Your task to perform on an android device: turn on bluetooth scan Image 0: 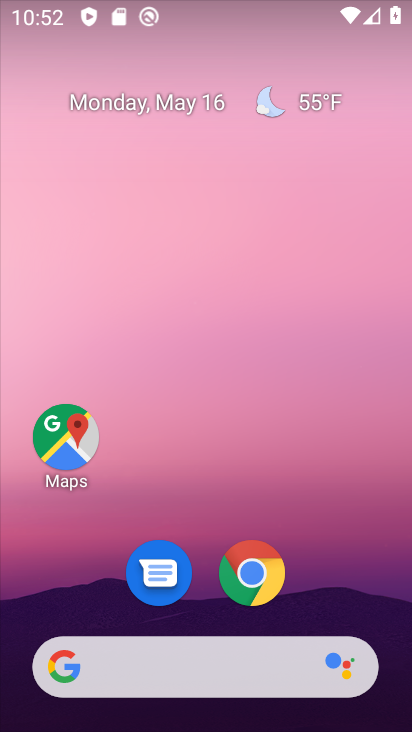
Step 0: drag from (173, 481) to (179, 268)
Your task to perform on an android device: turn on bluetooth scan Image 1: 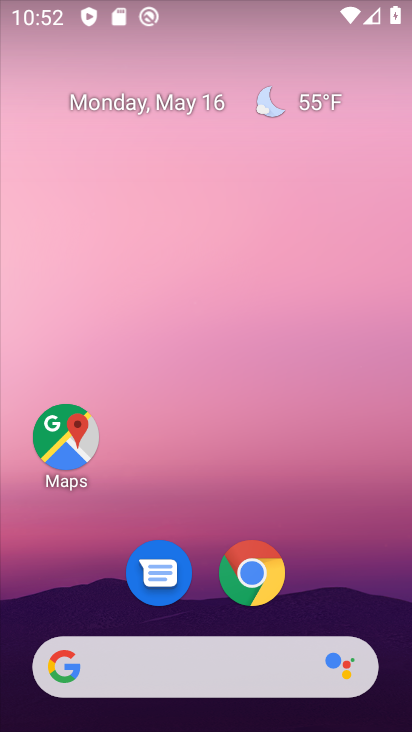
Step 1: drag from (207, 589) to (207, 199)
Your task to perform on an android device: turn on bluetooth scan Image 2: 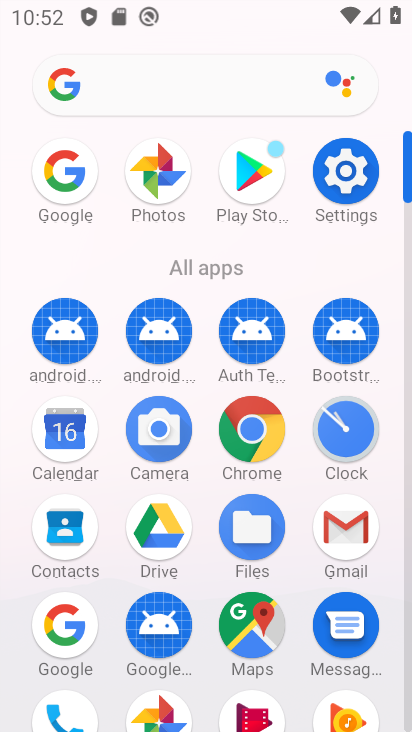
Step 2: click (341, 175)
Your task to perform on an android device: turn on bluetooth scan Image 3: 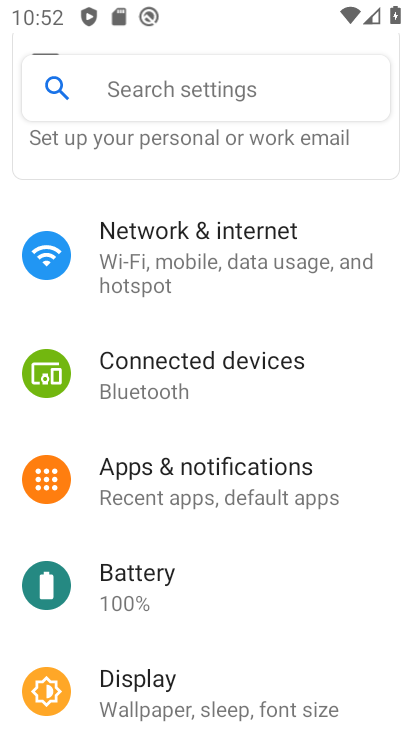
Step 3: drag from (168, 695) to (161, 368)
Your task to perform on an android device: turn on bluetooth scan Image 4: 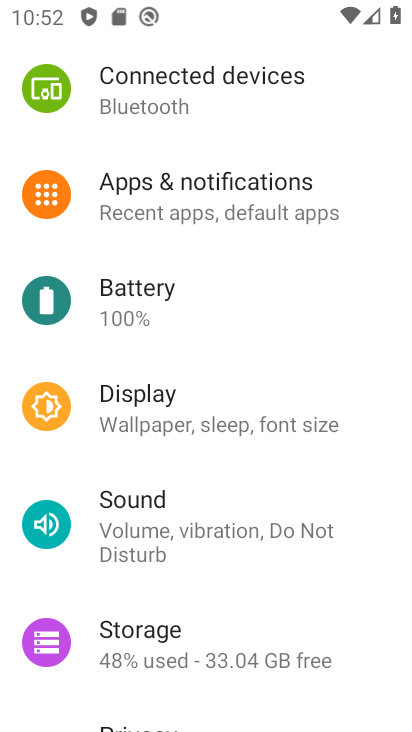
Step 4: drag from (195, 675) to (196, 420)
Your task to perform on an android device: turn on bluetooth scan Image 5: 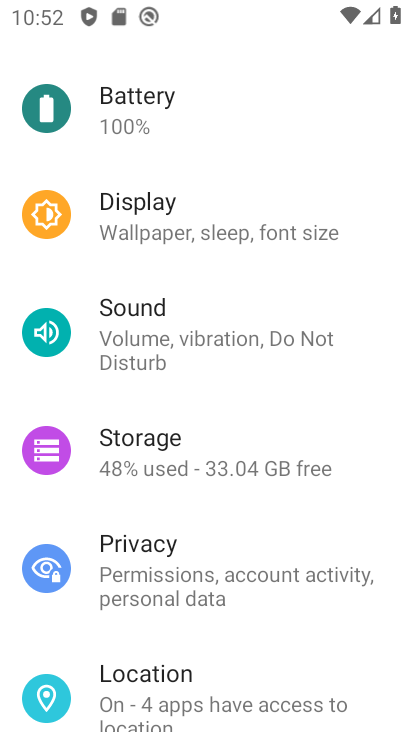
Step 5: drag from (146, 711) to (162, 388)
Your task to perform on an android device: turn on bluetooth scan Image 6: 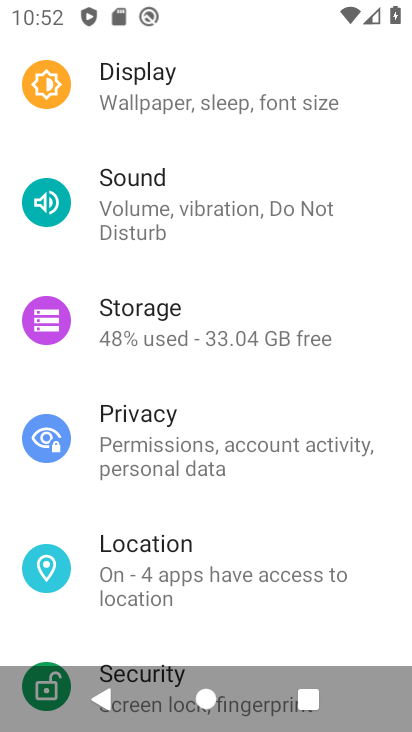
Step 6: click (168, 578)
Your task to perform on an android device: turn on bluetooth scan Image 7: 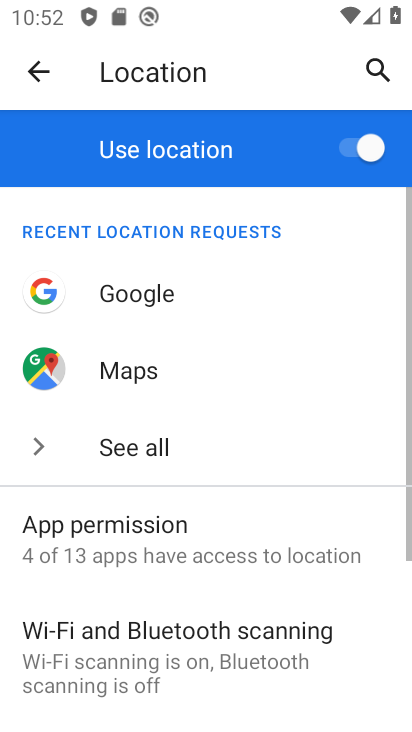
Step 7: click (201, 635)
Your task to perform on an android device: turn on bluetooth scan Image 8: 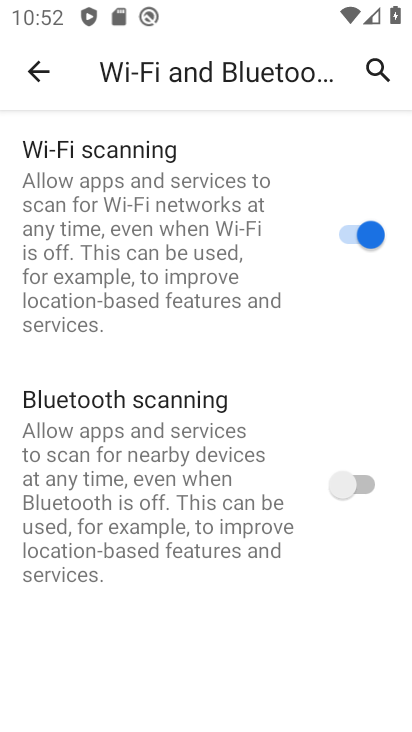
Step 8: click (365, 479)
Your task to perform on an android device: turn on bluetooth scan Image 9: 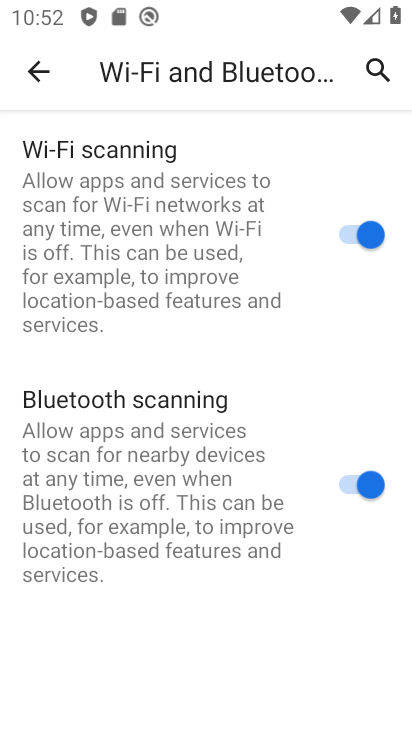
Step 9: task complete